Your task to perform on an android device: manage bookmarks in the chrome app Image 0: 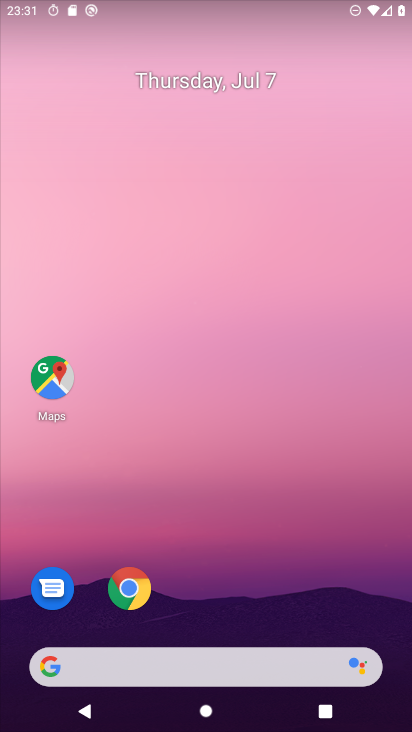
Step 0: drag from (348, 612) to (262, 72)
Your task to perform on an android device: manage bookmarks in the chrome app Image 1: 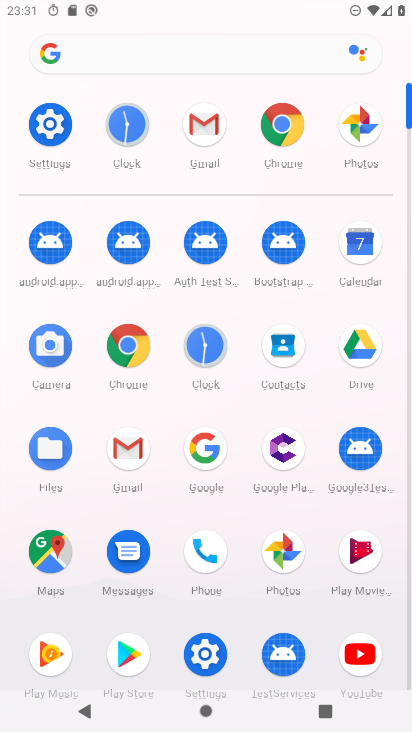
Step 1: click (297, 124)
Your task to perform on an android device: manage bookmarks in the chrome app Image 2: 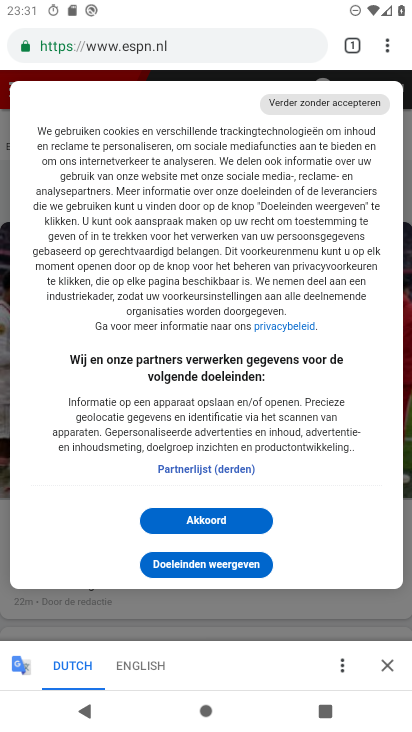
Step 2: drag from (388, 38) to (252, 169)
Your task to perform on an android device: manage bookmarks in the chrome app Image 3: 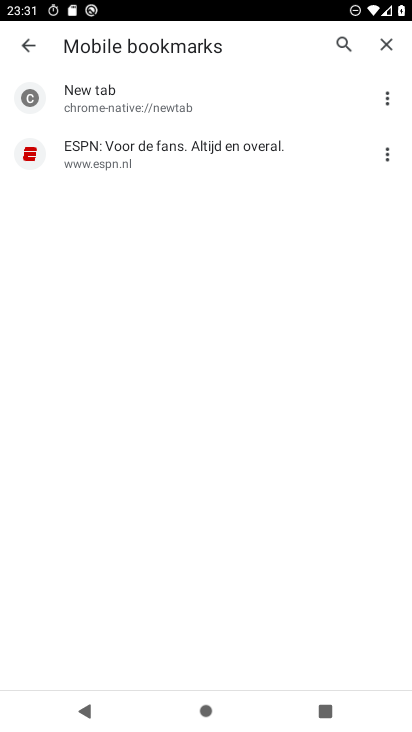
Step 3: click (385, 151)
Your task to perform on an android device: manage bookmarks in the chrome app Image 4: 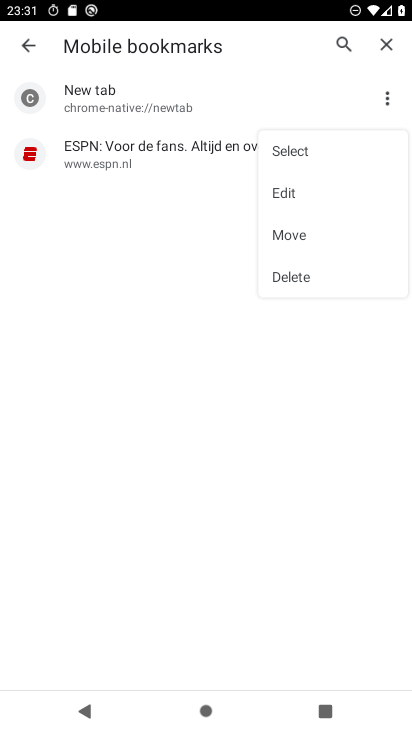
Step 4: click (295, 278)
Your task to perform on an android device: manage bookmarks in the chrome app Image 5: 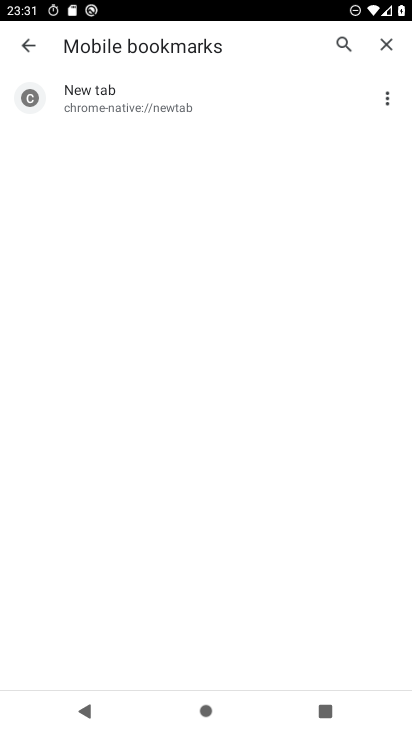
Step 5: task complete